Your task to perform on an android device: open app "Venmo" (install if not already installed), go to login, and select forgot password Image 0: 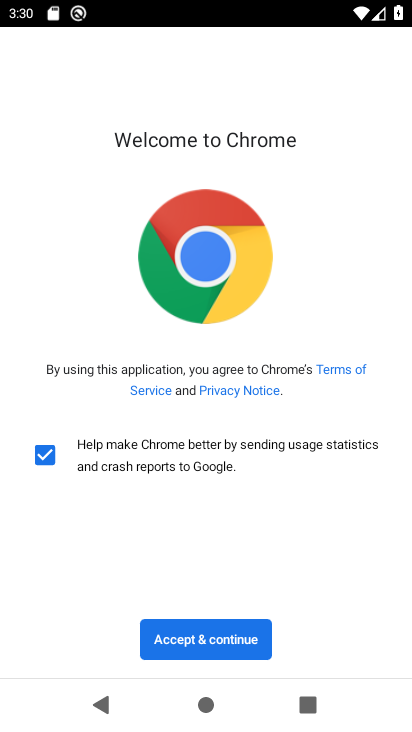
Step 0: press home button
Your task to perform on an android device: open app "Venmo" (install if not already installed), go to login, and select forgot password Image 1: 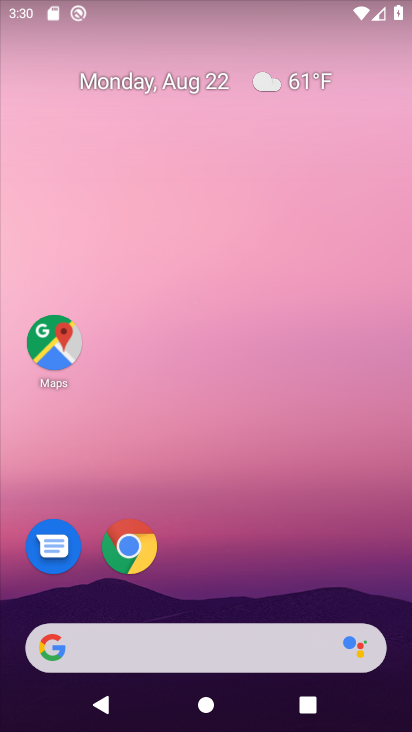
Step 1: drag from (392, 622) to (328, 25)
Your task to perform on an android device: open app "Venmo" (install if not already installed), go to login, and select forgot password Image 2: 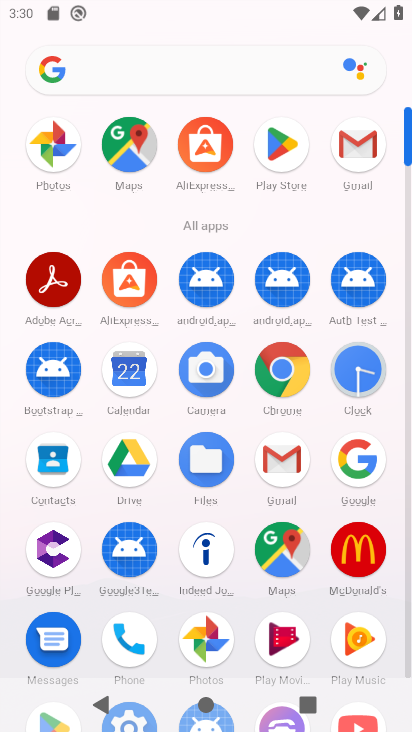
Step 2: click (408, 657)
Your task to perform on an android device: open app "Venmo" (install if not already installed), go to login, and select forgot password Image 3: 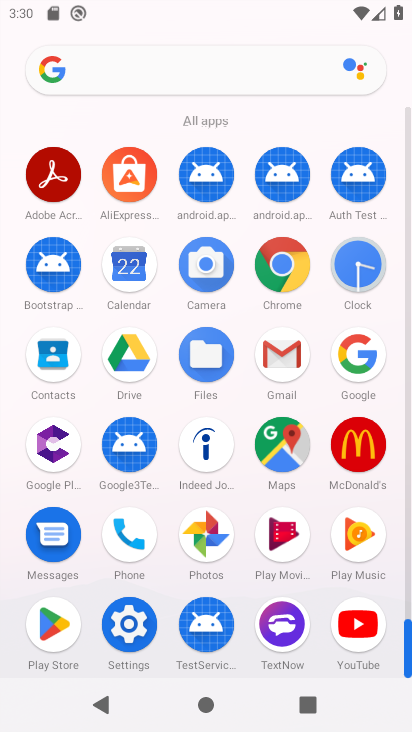
Step 3: click (57, 624)
Your task to perform on an android device: open app "Venmo" (install if not already installed), go to login, and select forgot password Image 4: 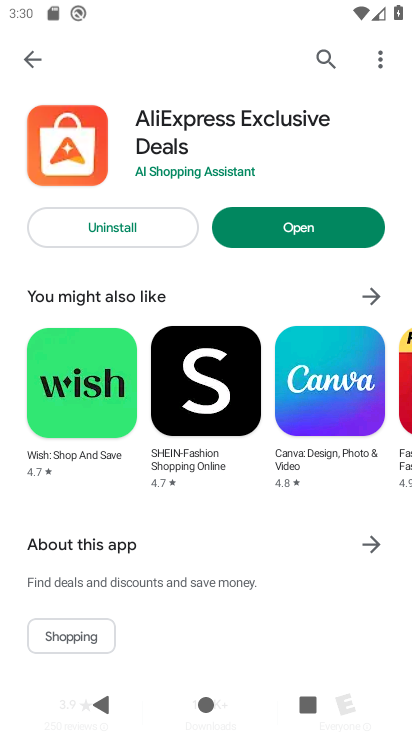
Step 4: click (321, 54)
Your task to perform on an android device: open app "Venmo" (install if not already installed), go to login, and select forgot password Image 5: 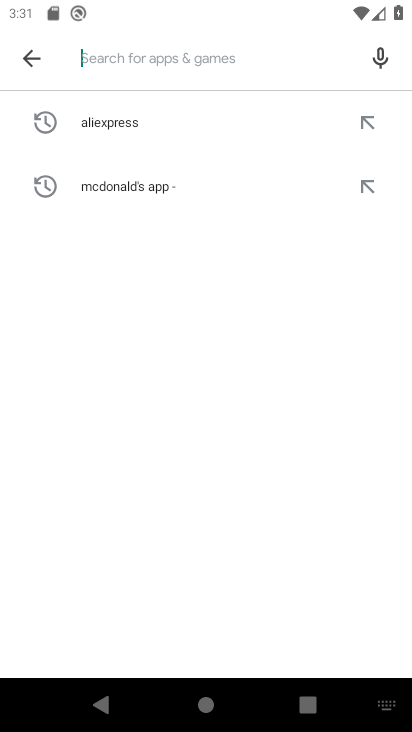
Step 5: type "Venmo"
Your task to perform on an android device: open app "Venmo" (install if not already installed), go to login, and select forgot password Image 6: 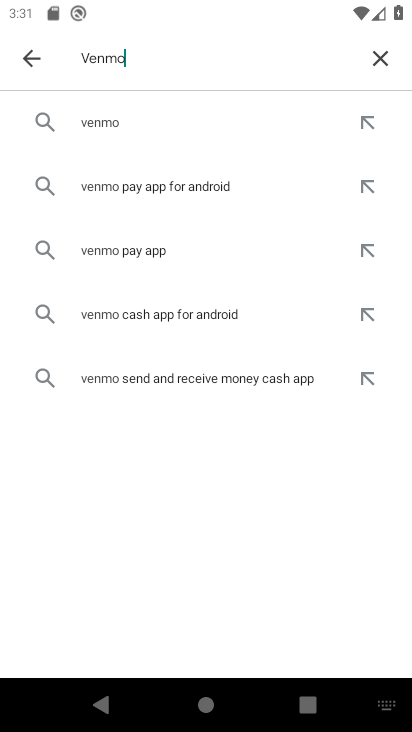
Step 6: click (104, 122)
Your task to perform on an android device: open app "Venmo" (install if not already installed), go to login, and select forgot password Image 7: 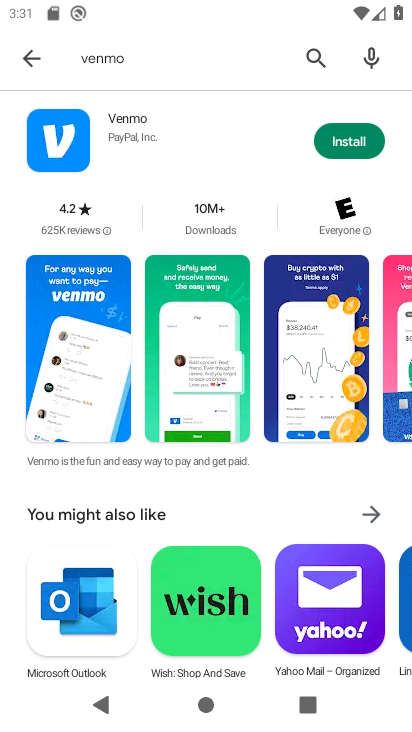
Step 7: click (110, 125)
Your task to perform on an android device: open app "Venmo" (install if not already installed), go to login, and select forgot password Image 8: 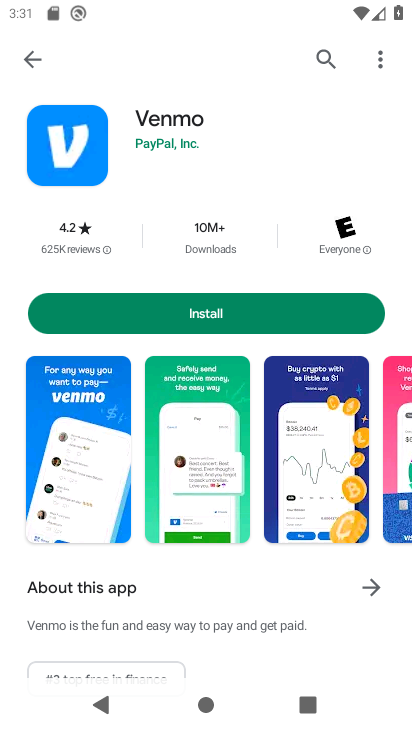
Step 8: click (204, 311)
Your task to perform on an android device: open app "Venmo" (install if not already installed), go to login, and select forgot password Image 9: 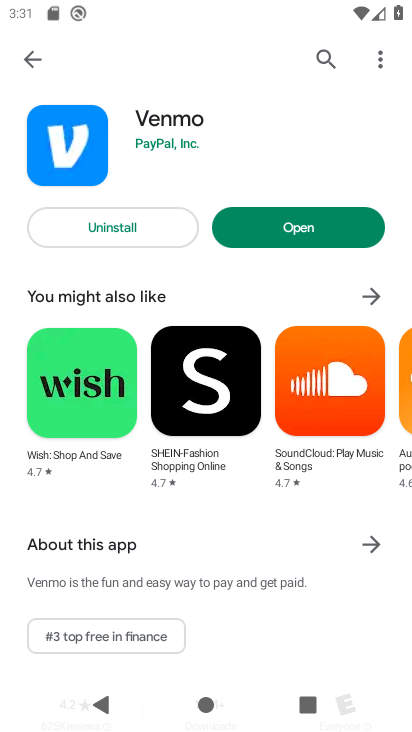
Step 9: click (298, 227)
Your task to perform on an android device: open app "Venmo" (install if not already installed), go to login, and select forgot password Image 10: 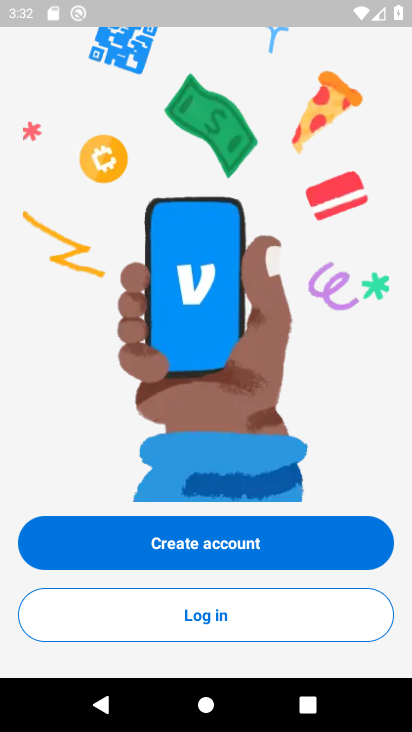
Step 10: click (206, 620)
Your task to perform on an android device: open app "Venmo" (install if not already installed), go to login, and select forgot password Image 11: 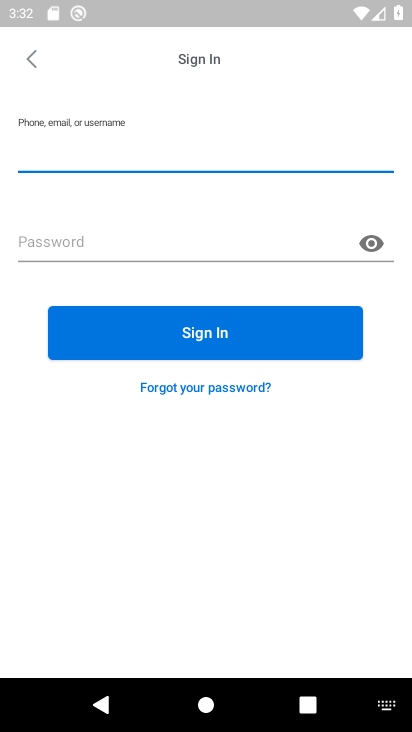
Step 11: click (193, 381)
Your task to perform on an android device: open app "Venmo" (install if not already installed), go to login, and select forgot password Image 12: 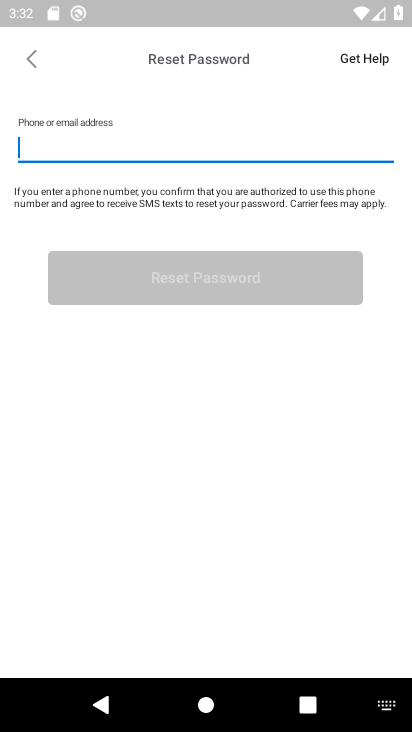
Step 12: task complete